Your task to perform on an android device: turn off priority inbox in the gmail app Image 0: 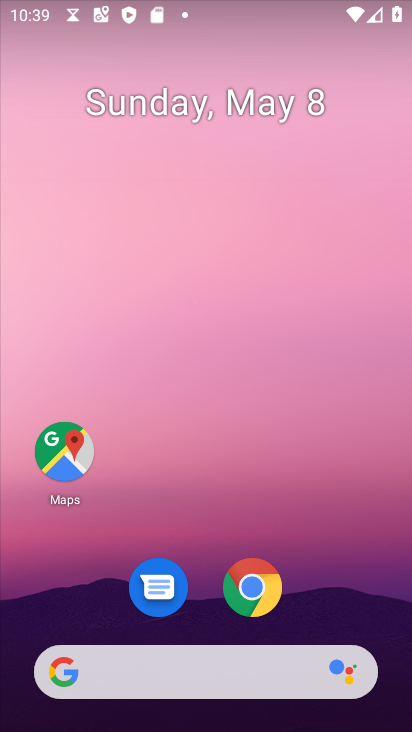
Step 0: drag from (301, 503) to (97, 202)
Your task to perform on an android device: turn off priority inbox in the gmail app Image 1: 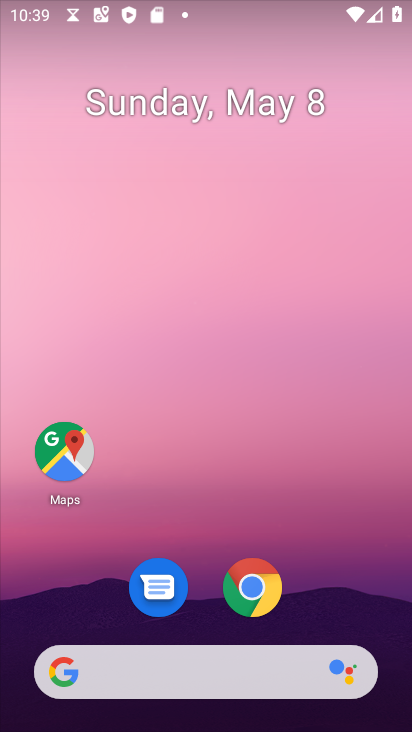
Step 1: drag from (328, 595) to (318, 114)
Your task to perform on an android device: turn off priority inbox in the gmail app Image 2: 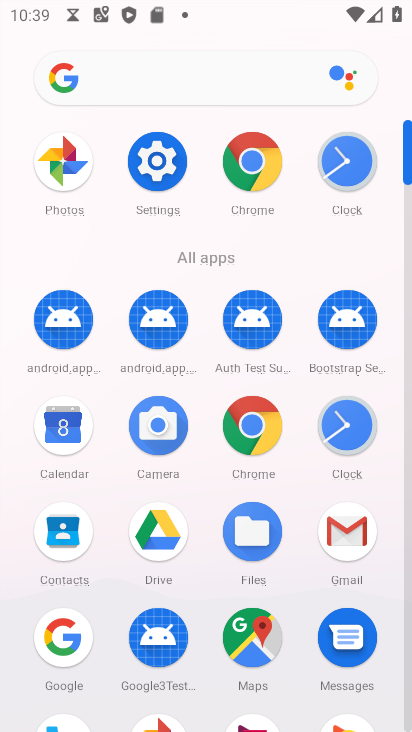
Step 2: click (346, 545)
Your task to perform on an android device: turn off priority inbox in the gmail app Image 3: 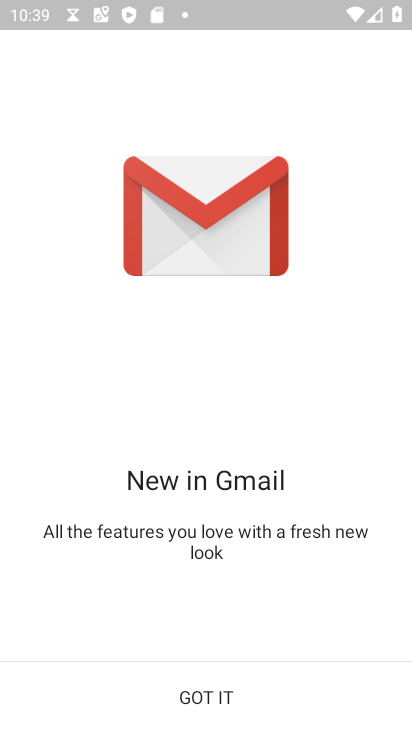
Step 3: click (210, 701)
Your task to perform on an android device: turn off priority inbox in the gmail app Image 4: 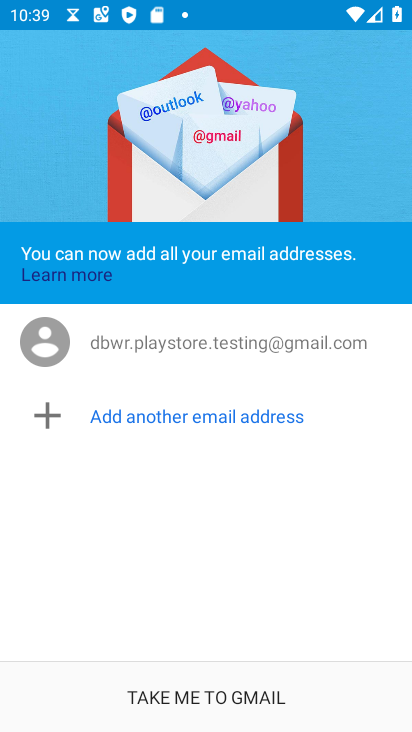
Step 4: click (213, 699)
Your task to perform on an android device: turn off priority inbox in the gmail app Image 5: 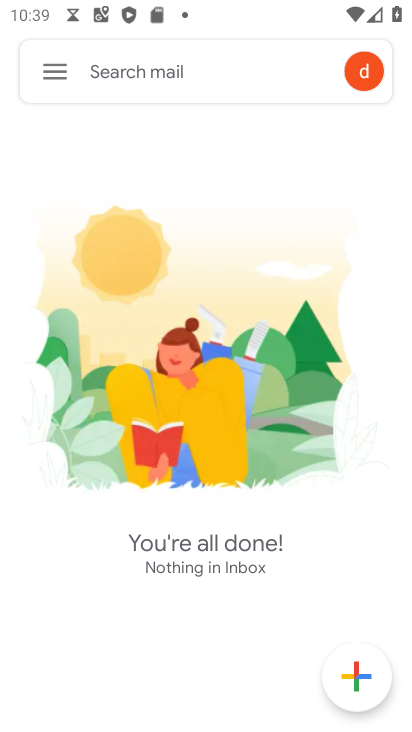
Step 5: click (53, 68)
Your task to perform on an android device: turn off priority inbox in the gmail app Image 6: 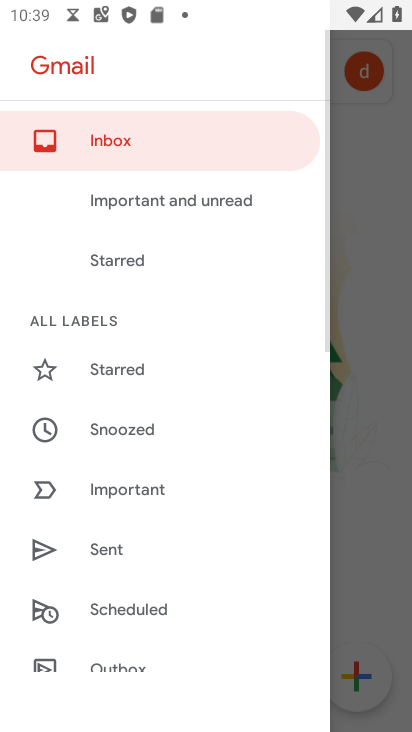
Step 6: drag from (164, 633) to (142, 202)
Your task to perform on an android device: turn off priority inbox in the gmail app Image 7: 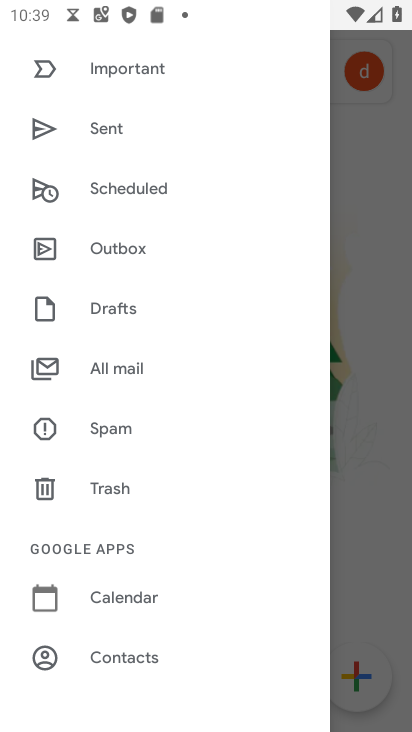
Step 7: drag from (132, 587) to (120, 211)
Your task to perform on an android device: turn off priority inbox in the gmail app Image 8: 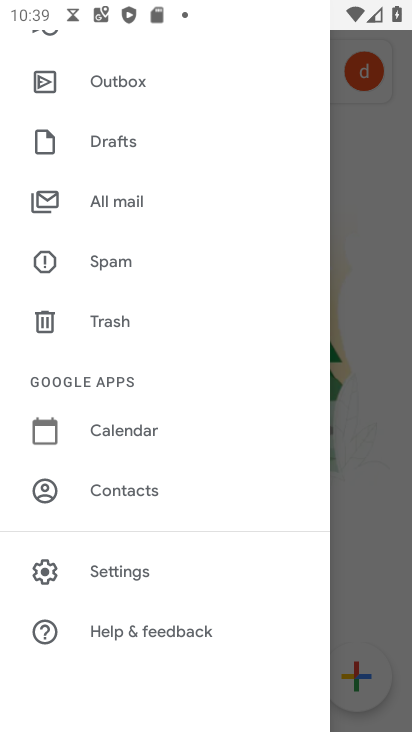
Step 8: click (125, 567)
Your task to perform on an android device: turn off priority inbox in the gmail app Image 9: 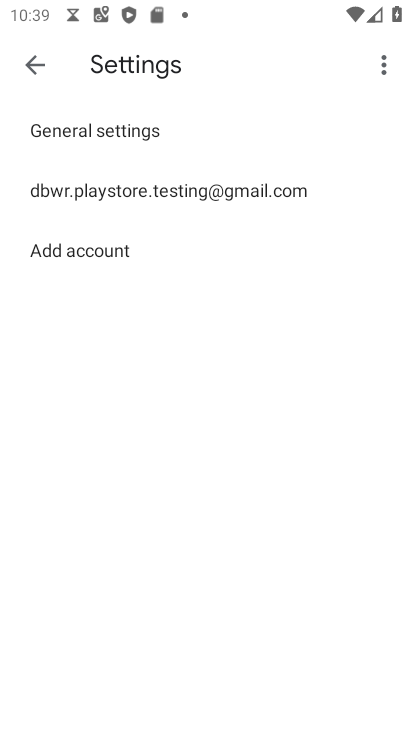
Step 9: click (155, 194)
Your task to perform on an android device: turn off priority inbox in the gmail app Image 10: 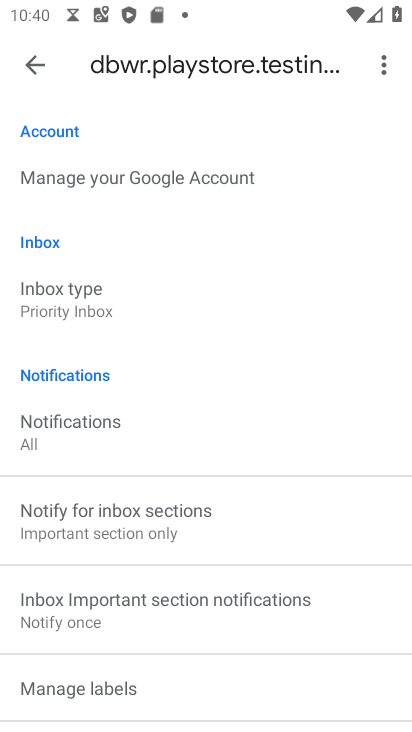
Step 10: click (62, 299)
Your task to perform on an android device: turn off priority inbox in the gmail app Image 11: 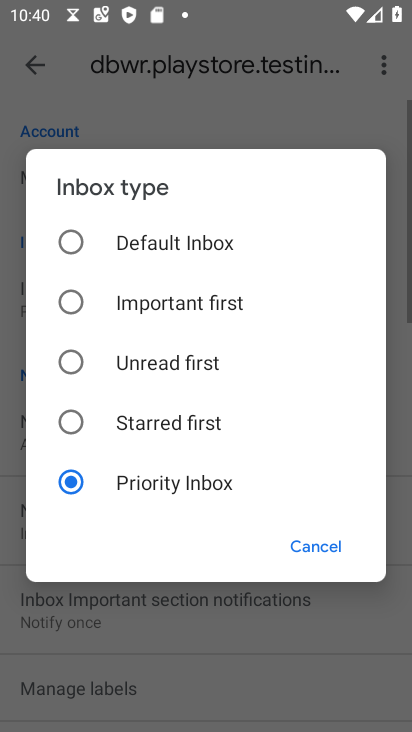
Step 11: click (101, 236)
Your task to perform on an android device: turn off priority inbox in the gmail app Image 12: 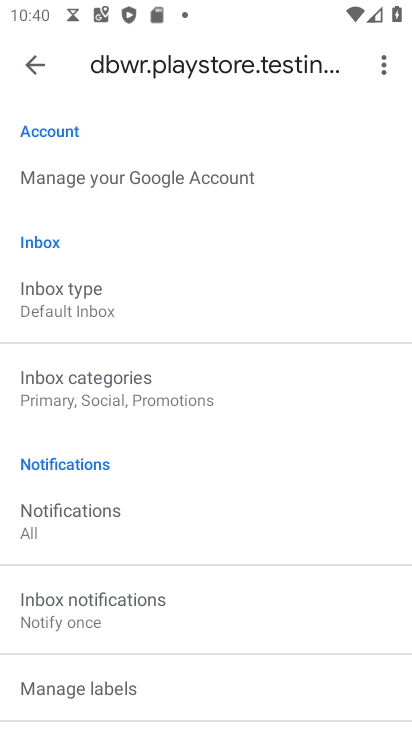
Step 12: task complete